Your task to perform on an android device: Search for jbl flip 4 on newegg, select the first entry, add it to the cart, then select checkout. Image 0: 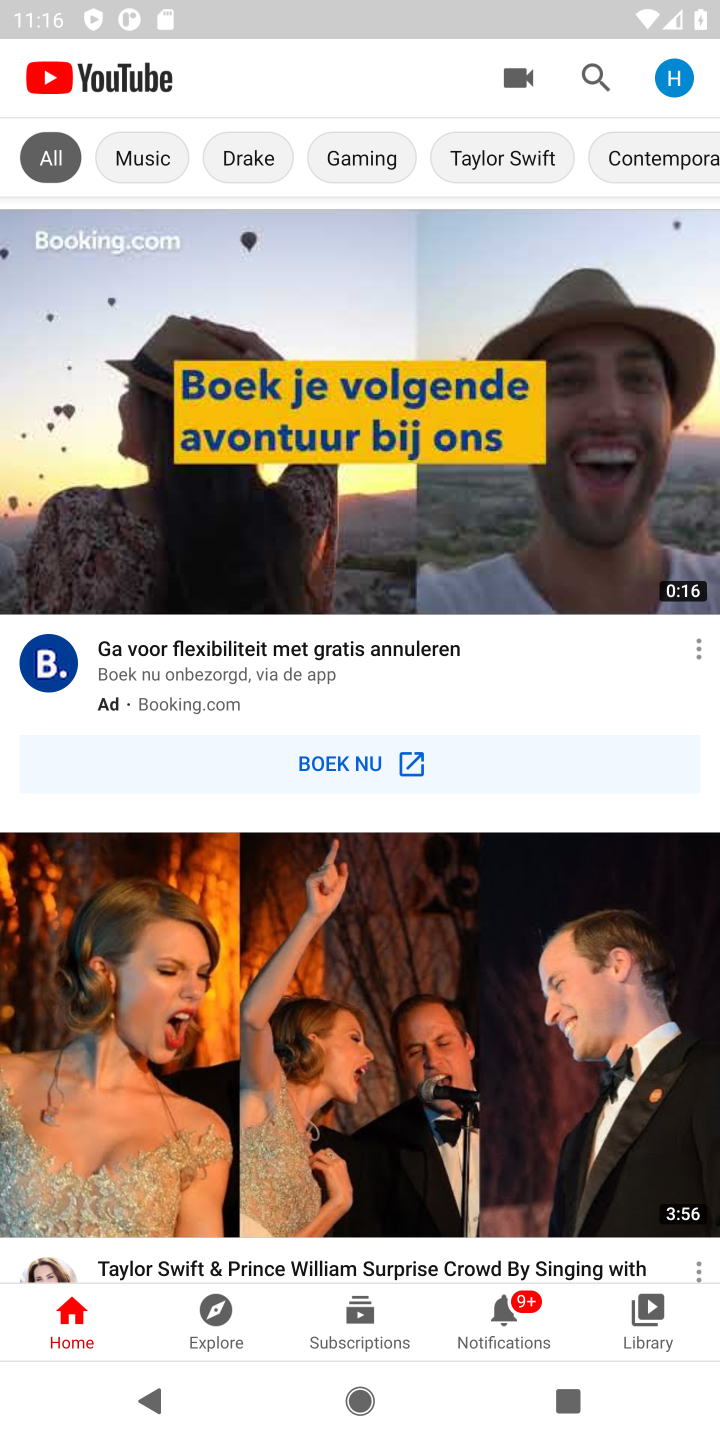
Step 0: press home button
Your task to perform on an android device: Search for jbl flip 4 on newegg, select the first entry, add it to the cart, then select checkout. Image 1: 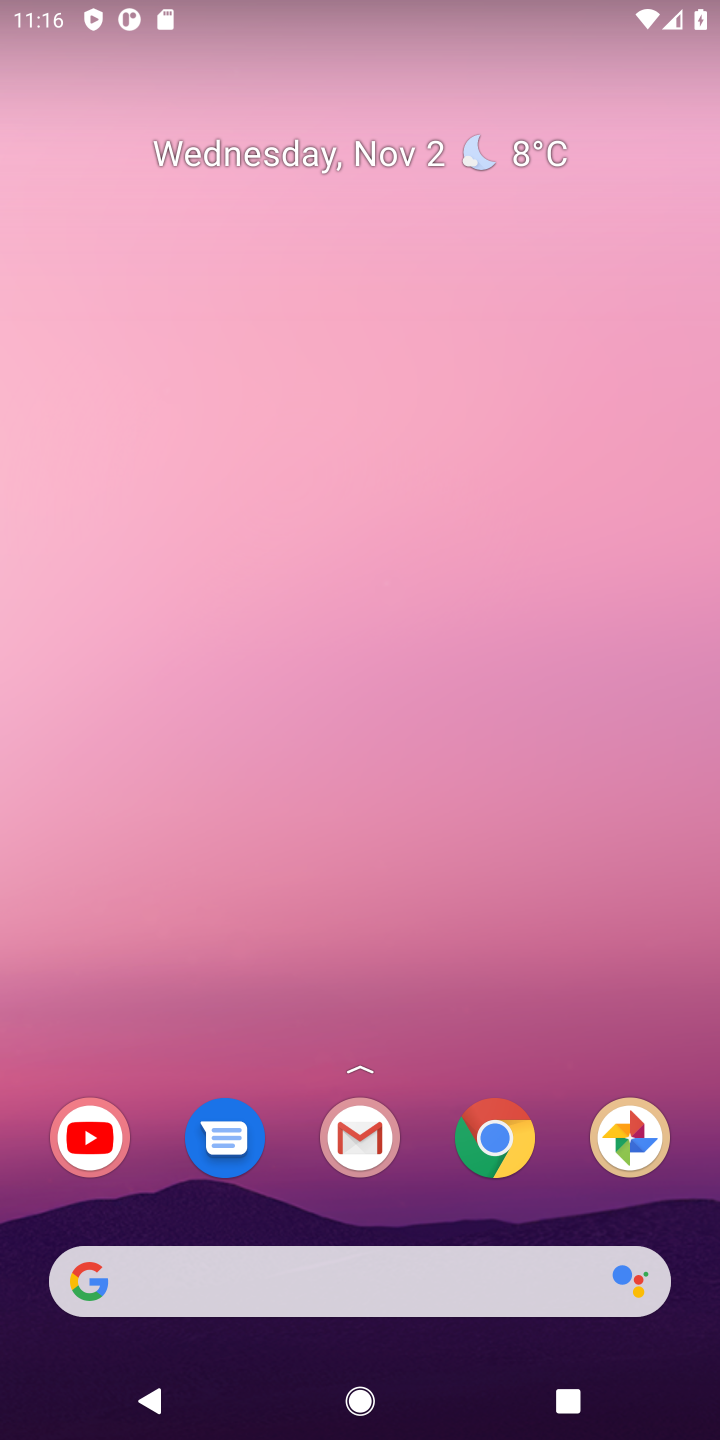
Step 1: click (511, 1138)
Your task to perform on an android device: Search for jbl flip 4 on newegg, select the first entry, add it to the cart, then select checkout. Image 2: 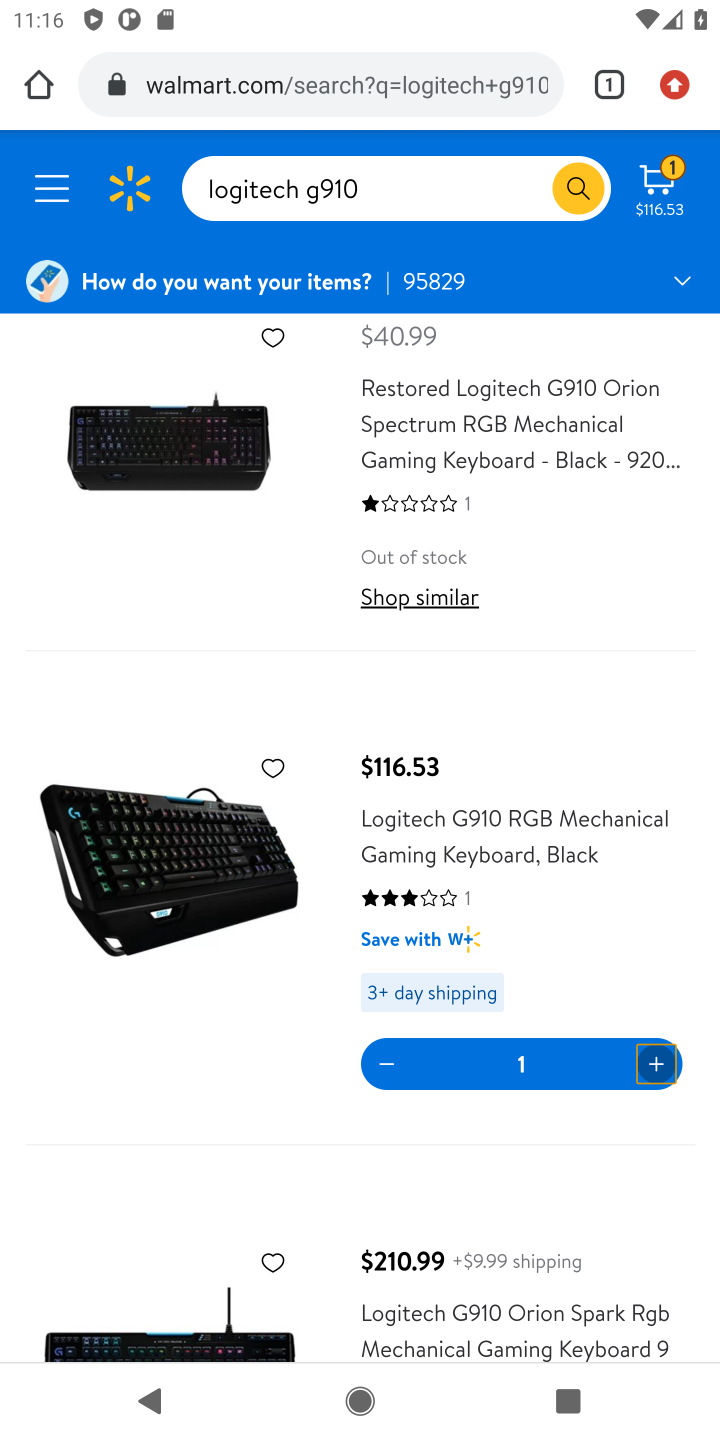
Step 2: click (195, 77)
Your task to perform on an android device: Search for jbl flip 4 on newegg, select the first entry, add it to the cart, then select checkout. Image 3: 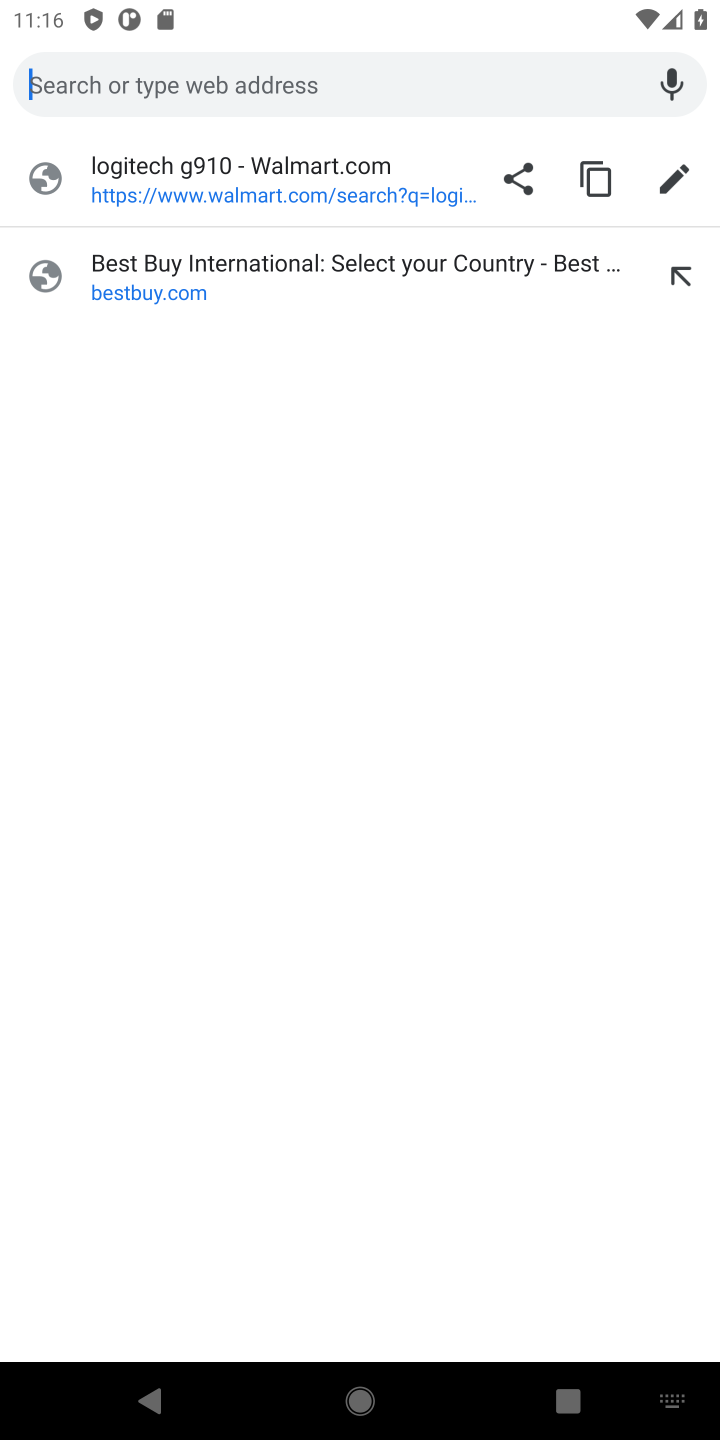
Step 3: type "newegg"
Your task to perform on an android device: Search for jbl flip 4 on newegg, select the first entry, add it to the cart, then select checkout. Image 4: 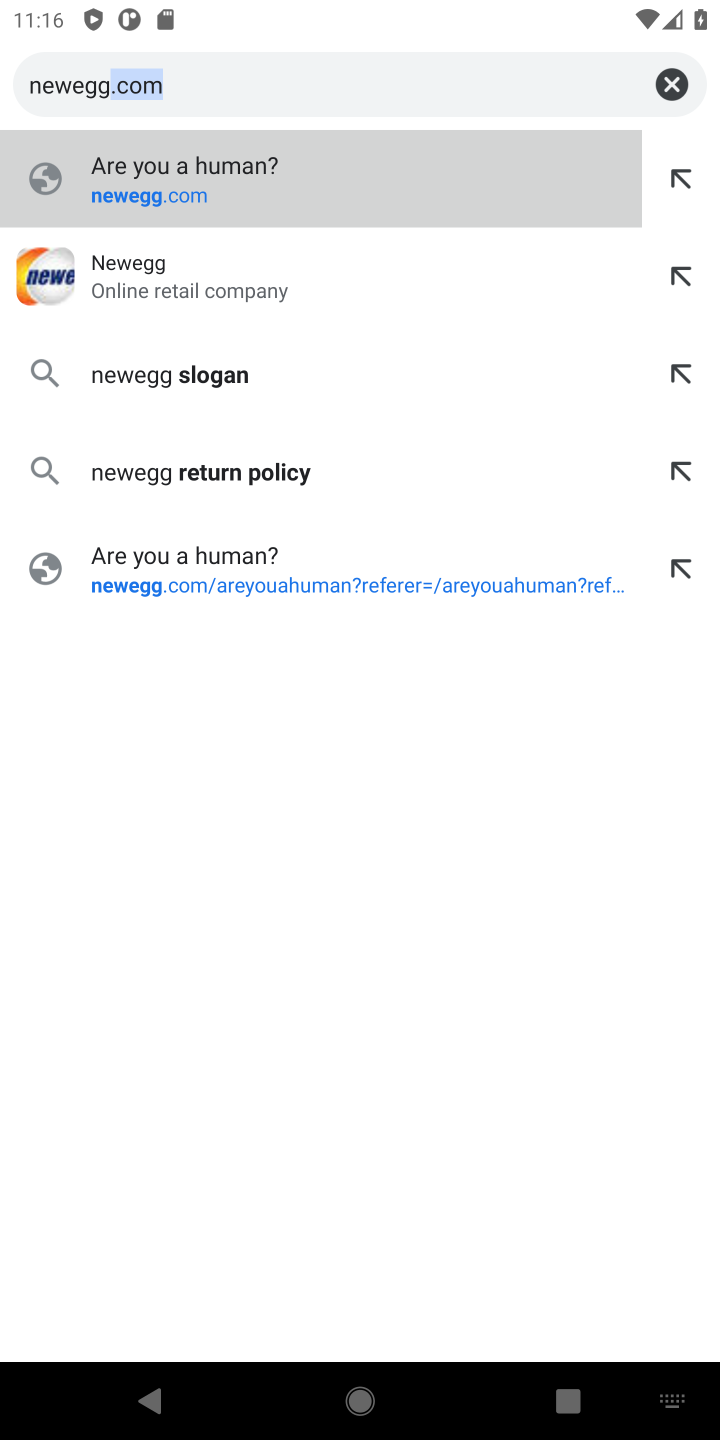
Step 4: click (135, 264)
Your task to perform on an android device: Search for jbl flip 4 on newegg, select the first entry, add it to the cart, then select checkout. Image 5: 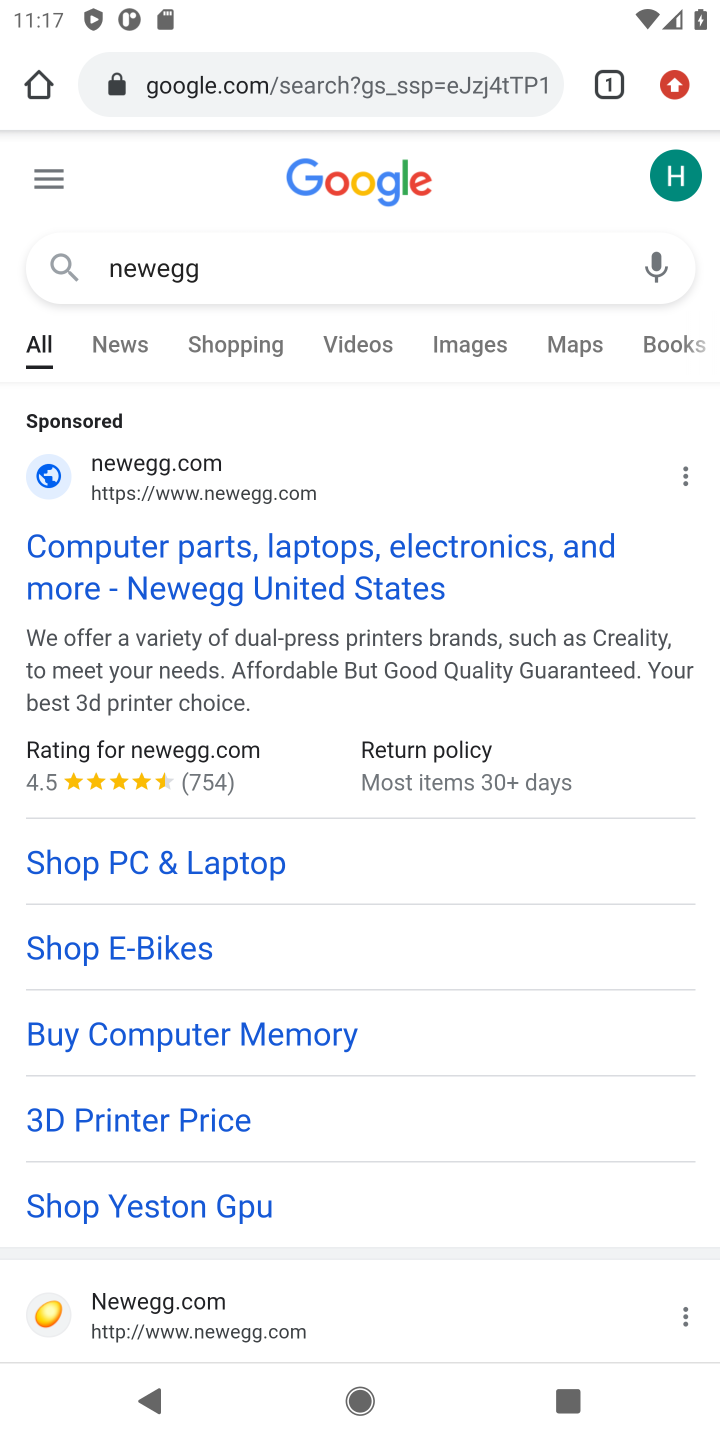
Step 5: click (294, 591)
Your task to perform on an android device: Search for jbl flip 4 on newegg, select the first entry, add it to the cart, then select checkout. Image 6: 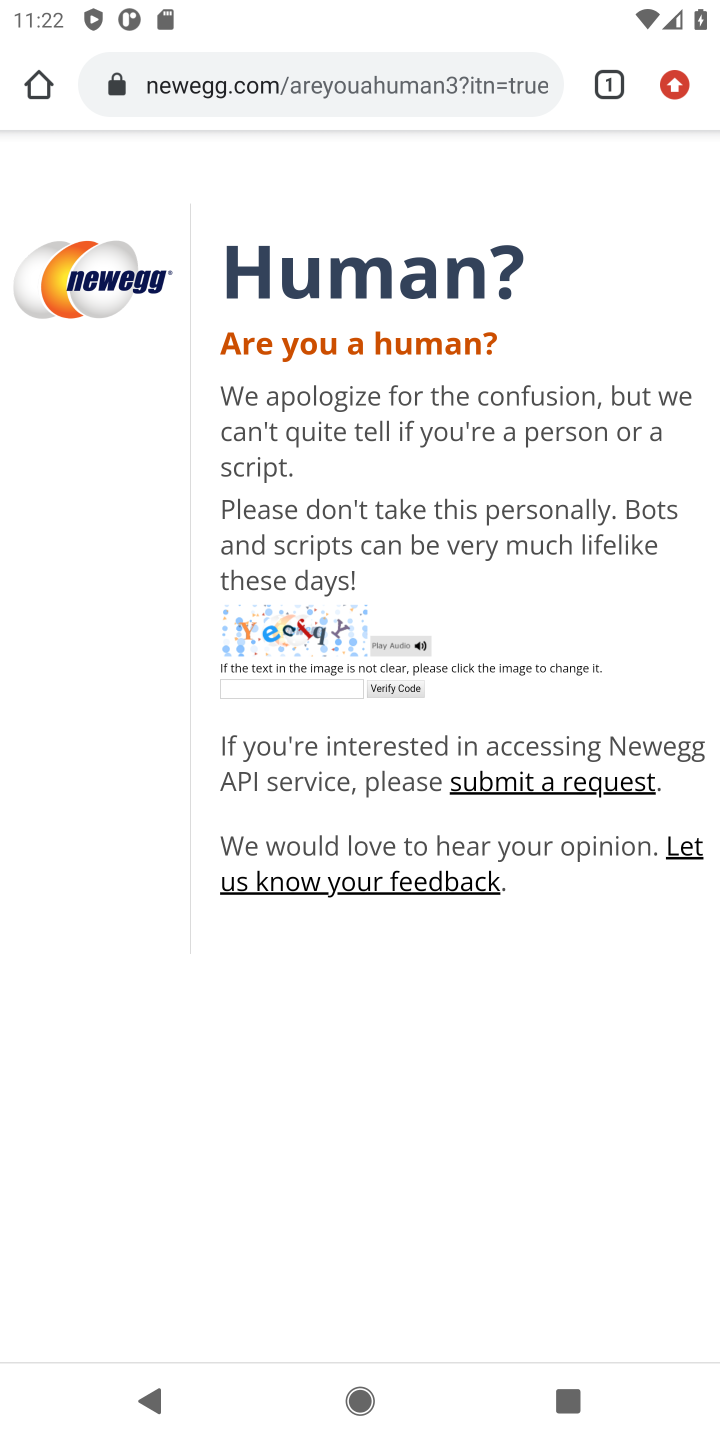
Step 6: task complete